Your task to perform on an android device: Is it going to rain today? Image 0: 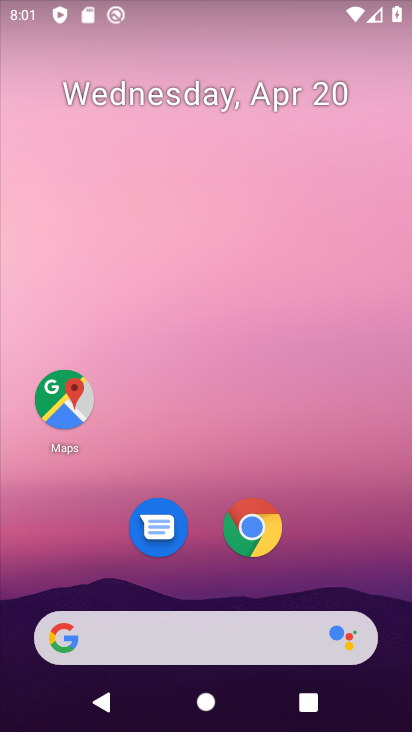
Step 0: drag from (207, 617) to (203, 274)
Your task to perform on an android device: Is it going to rain today? Image 1: 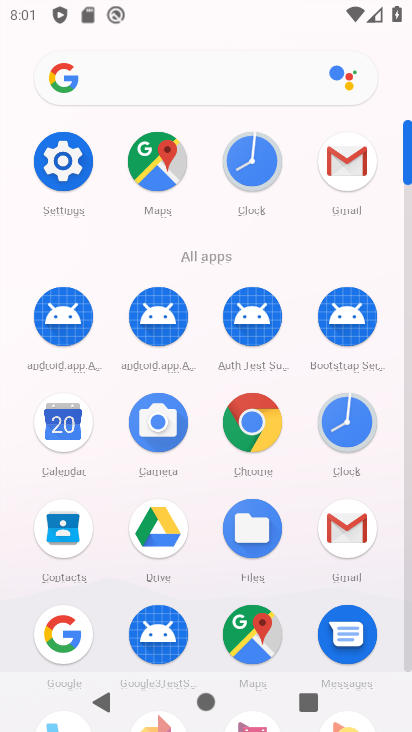
Step 1: click (60, 633)
Your task to perform on an android device: Is it going to rain today? Image 2: 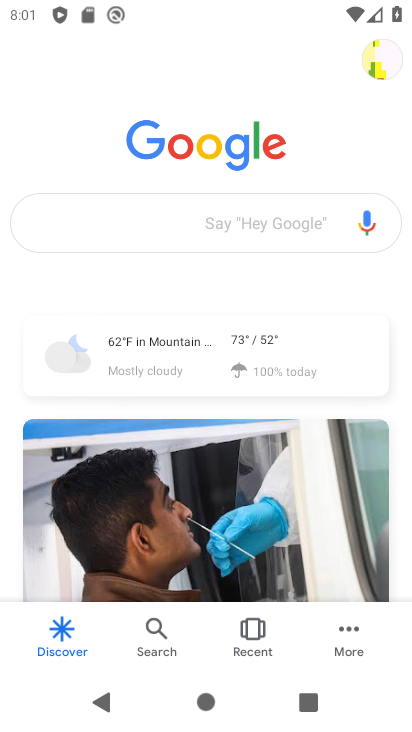
Step 2: click (210, 342)
Your task to perform on an android device: Is it going to rain today? Image 3: 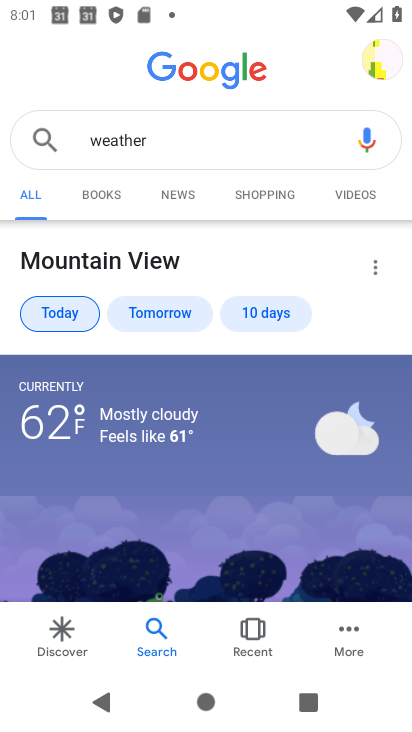
Step 3: task complete